Your task to perform on an android device: turn vacation reply on in the gmail app Image 0: 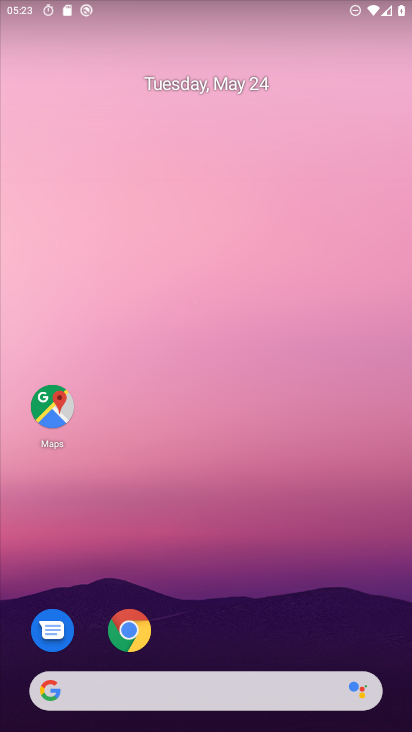
Step 0: drag from (188, 157) to (272, 26)
Your task to perform on an android device: turn vacation reply on in the gmail app Image 1: 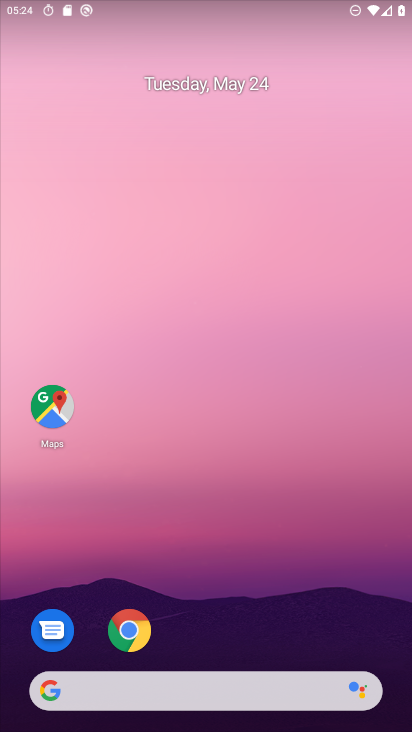
Step 1: drag from (223, 629) to (338, 98)
Your task to perform on an android device: turn vacation reply on in the gmail app Image 2: 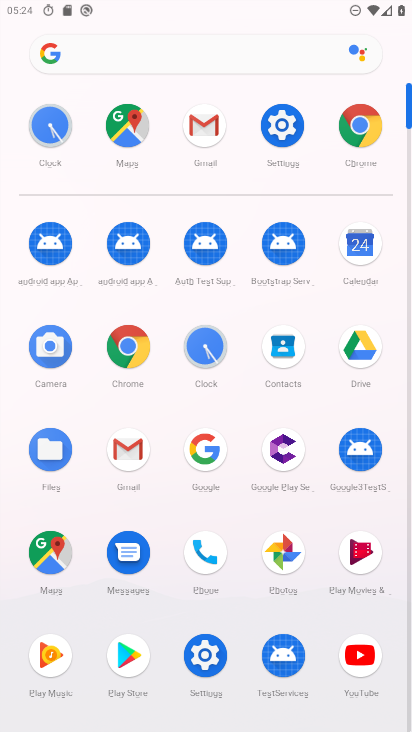
Step 2: click (207, 122)
Your task to perform on an android device: turn vacation reply on in the gmail app Image 3: 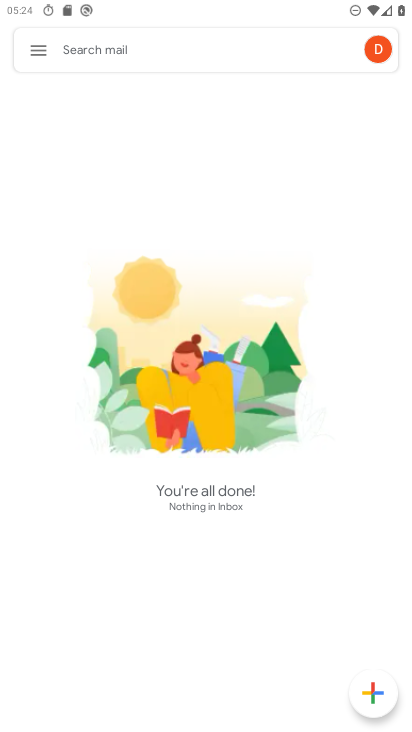
Step 3: click (41, 54)
Your task to perform on an android device: turn vacation reply on in the gmail app Image 4: 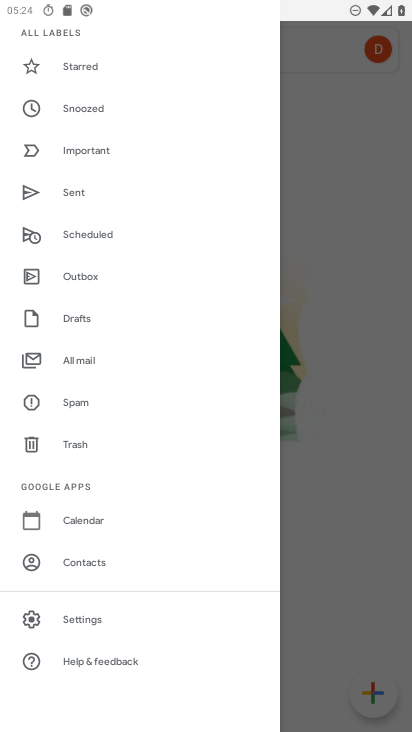
Step 4: click (64, 624)
Your task to perform on an android device: turn vacation reply on in the gmail app Image 5: 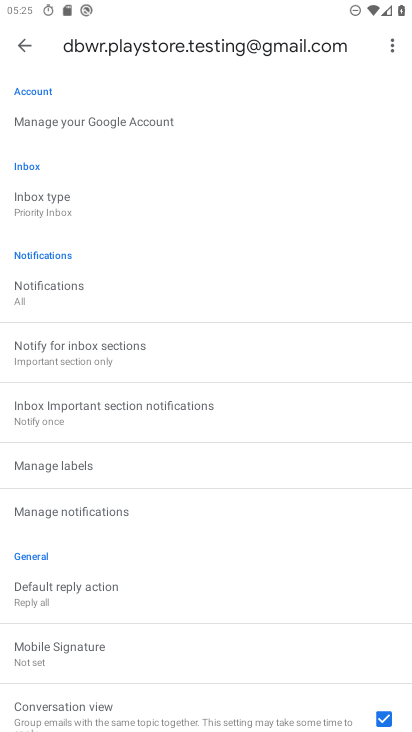
Step 5: task complete